Your task to perform on an android device: open sync settings in chrome Image 0: 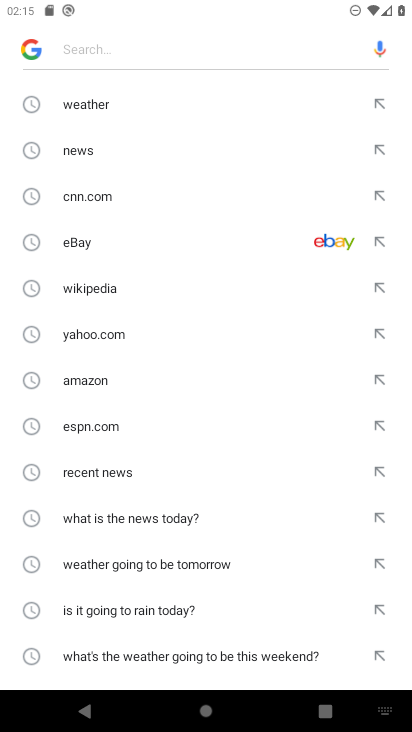
Step 0: press home button
Your task to perform on an android device: open sync settings in chrome Image 1: 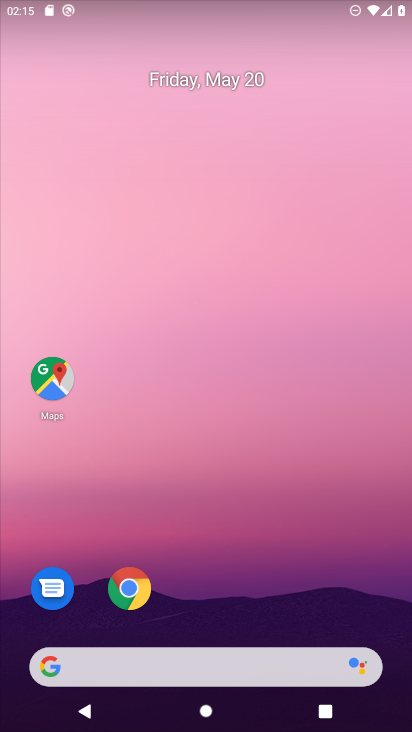
Step 1: click (126, 587)
Your task to perform on an android device: open sync settings in chrome Image 2: 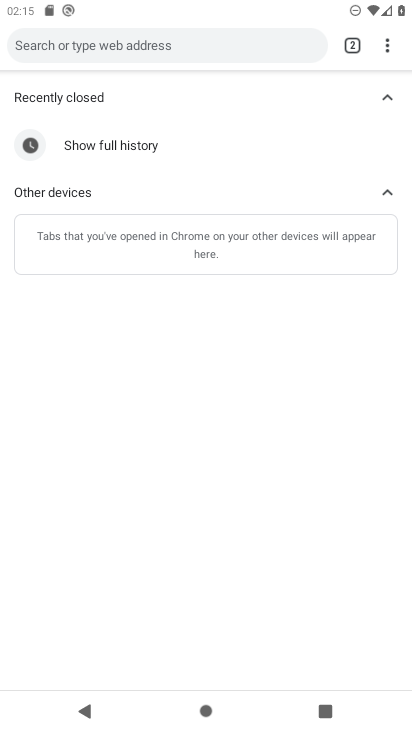
Step 2: click (387, 52)
Your task to perform on an android device: open sync settings in chrome Image 3: 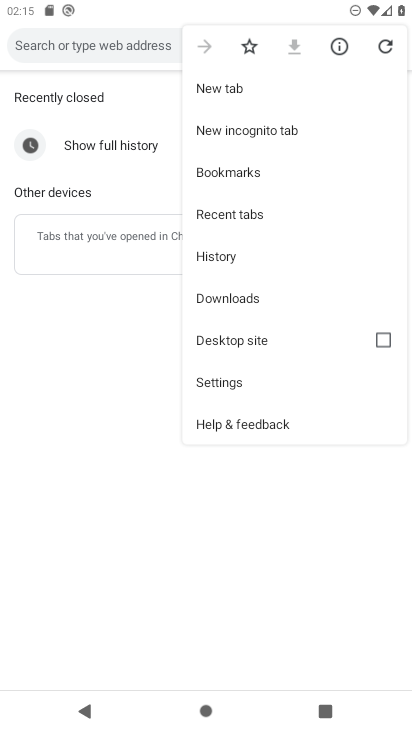
Step 3: click (227, 380)
Your task to perform on an android device: open sync settings in chrome Image 4: 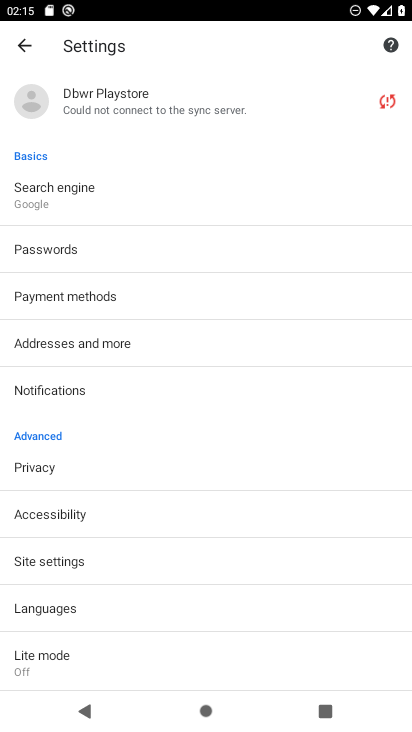
Step 4: click (111, 92)
Your task to perform on an android device: open sync settings in chrome Image 5: 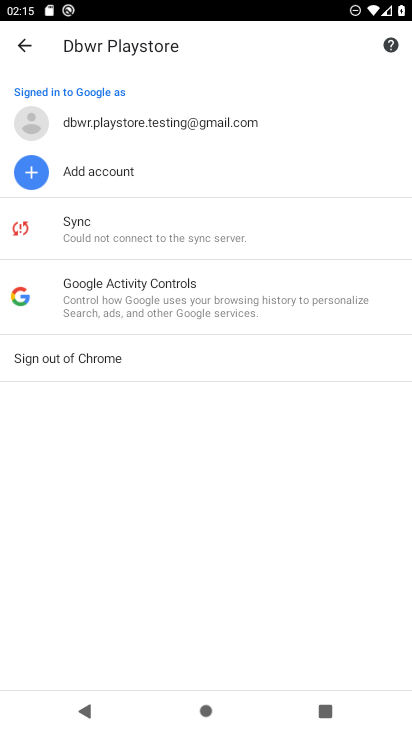
Step 5: click (77, 230)
Your task to perform on an android device: open sync settings in chrome Image 6: 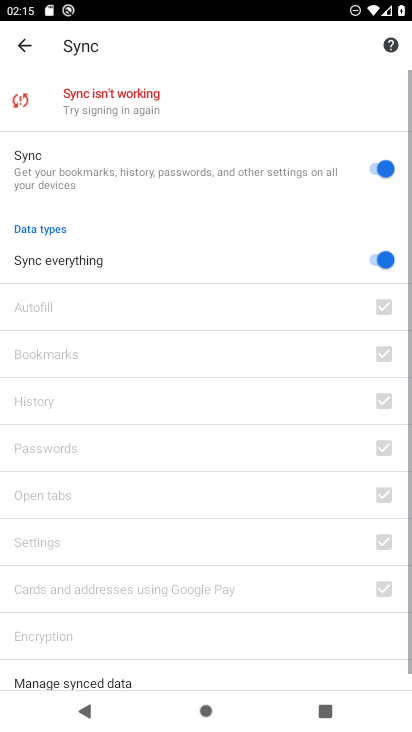
Step 6: task complete